Your task to perform on an android device: Do I have any events this weekend? Image 0: 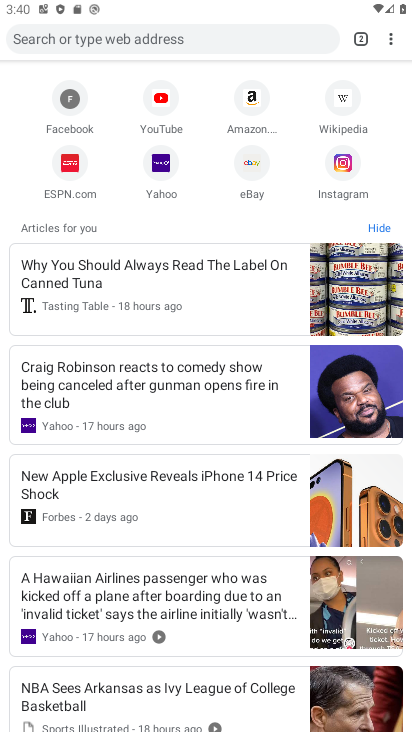
Step 0: press home button
Your task to perform on an android device: Do I have any events this weekend? Image 1: 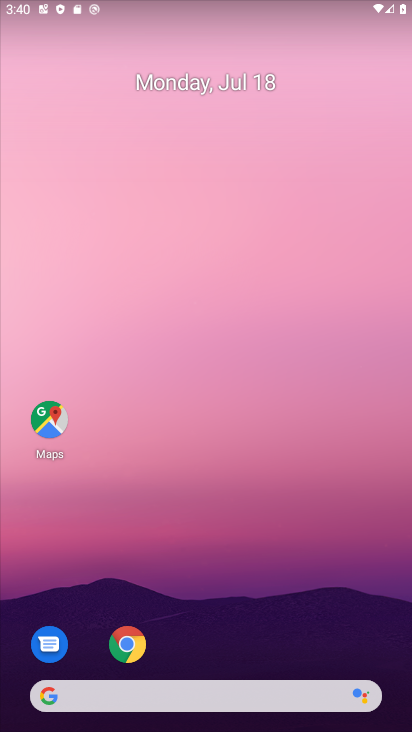
Step 1: drag from (361, 640) to (346, 191)
Your task to perform on an android device: Do I have any events this weekend? Image 2: 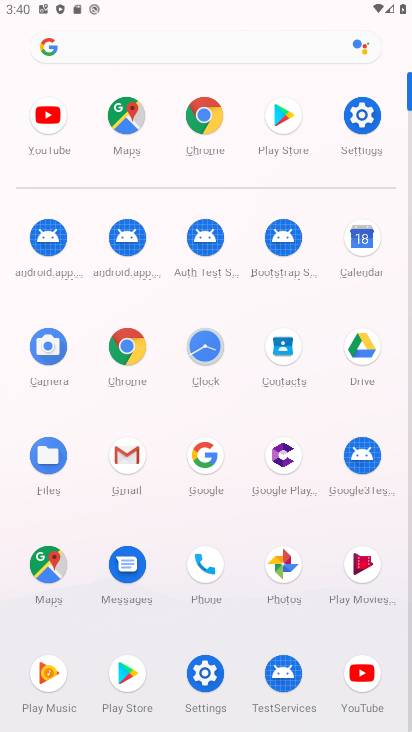
Step 2: click (362, 235)
Your task to perform on an android device: Do I have any events this weekend? Image 3: 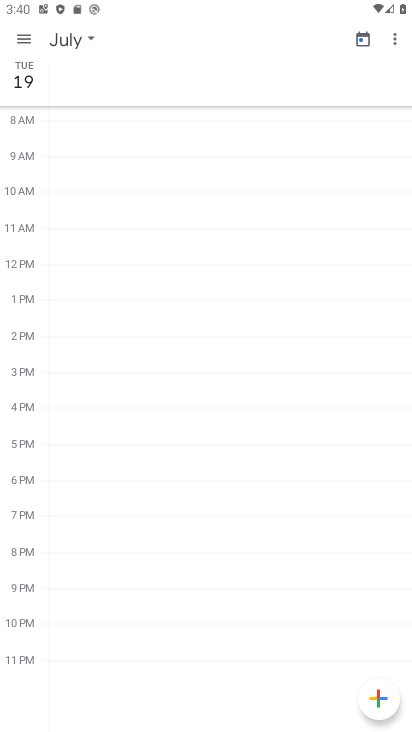
Step 3: click (21, 36)
Your task to perform on an android device: Do I have any events this weekend? Image 4: 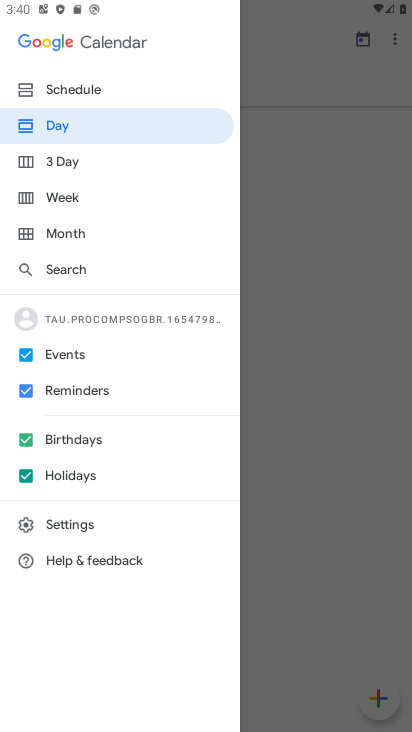
Step 4: click (49, 194)
Your task to perform on an android device: Do I have any events this weekend? Image 5: 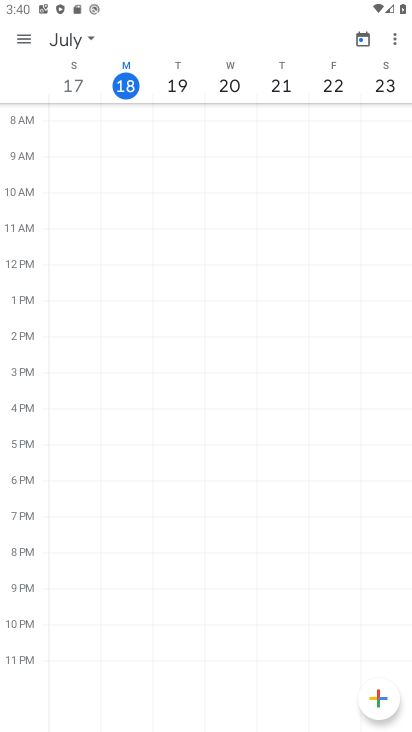
Step 5: task complete